Your task to perform on an android device: set default search engine in the chrome app Image 0: 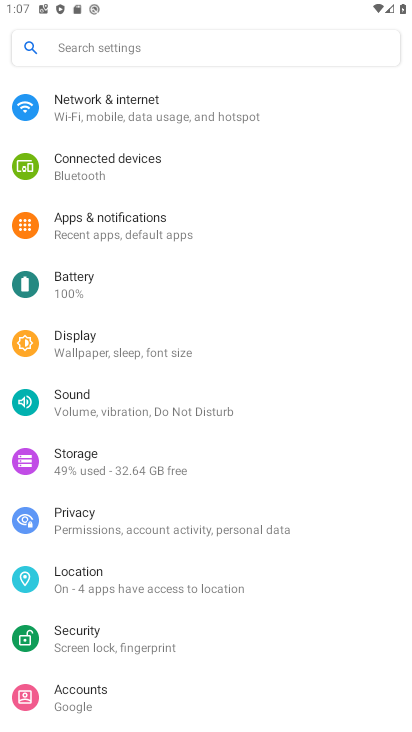
Step 0: drag from (231, 600) to (398, 479)
Your task to perform on an android device: set default search engine in the chrome app Image 1: 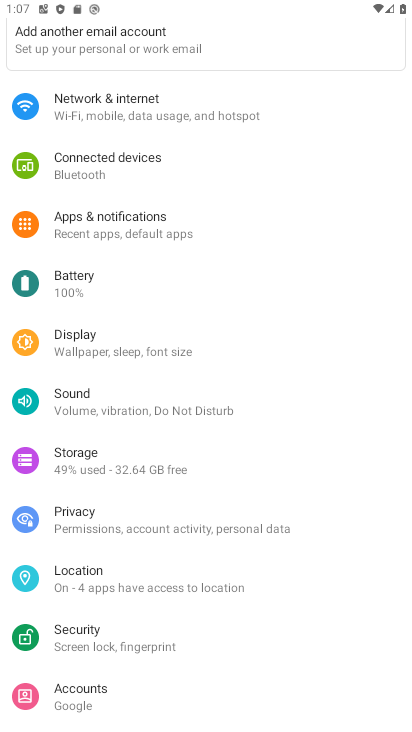
Step 1: press home button
Your task to perform on an android device: set default search engine in the chrome app Image 2: 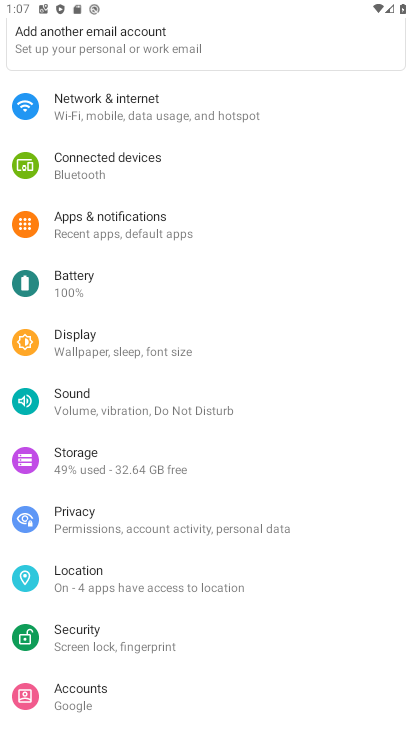
Step 2: drag from (398, 479) to (402, 556)
Your task to perform on an android device: set default search engine in the chrome app Image 3: 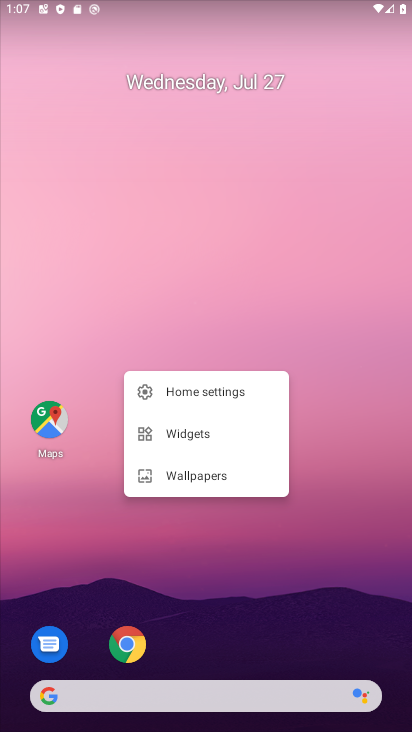
Step 3: click (112, 654)
Your task to perform on an android device: set default search engine in the chrome app Image 4: 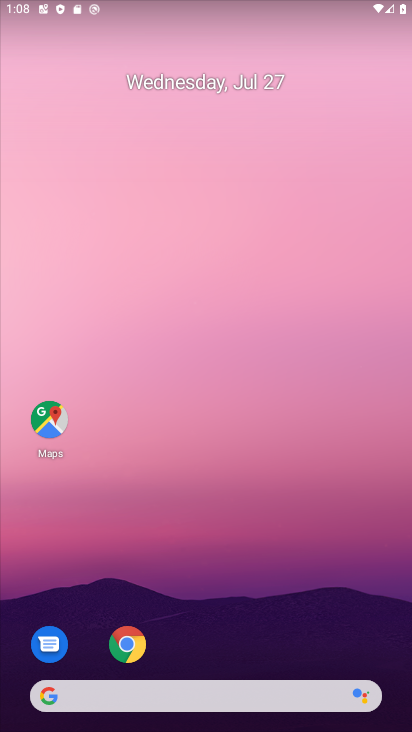
Step 4: click (112, 654)
Your task to perform on an android device: set default search engine in the chrome app Image 5: 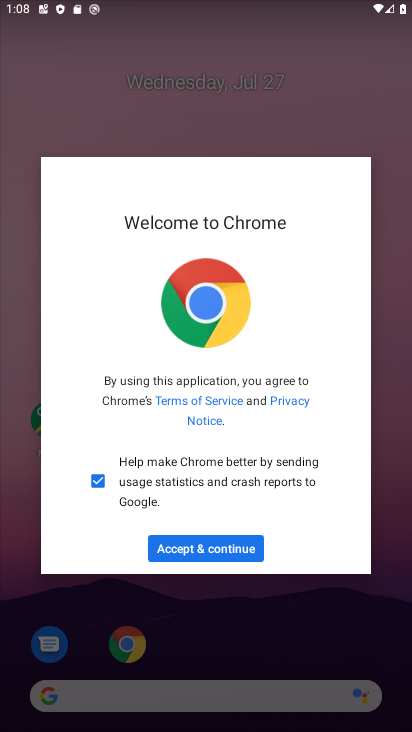
Step 5: click (228, 547)
Your task to perform on an android device: set default search engine in the chrome app Image 6: 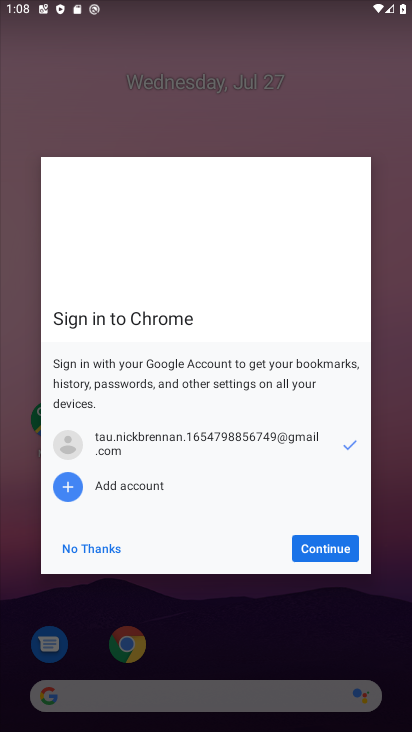
Step 6: click (330, 547)
Your task to perform on an android device: set default search engine in the chrome app Image 7: 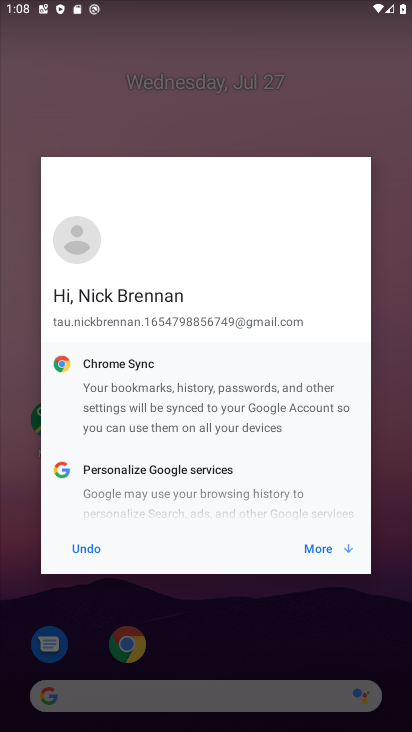
Step 7: click (340, 547)
Your task to perform on an android device: set default search engine in the chrome app Image 8: 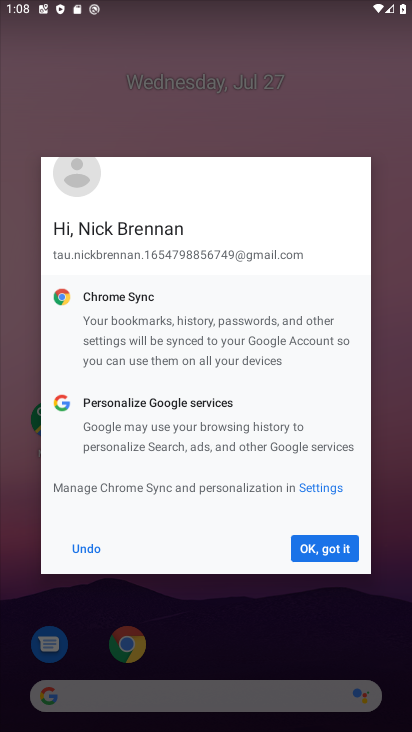
Step 8: click (350, 547)
Your task to perform on an android device: set default search engine in the chrome app Image 9: 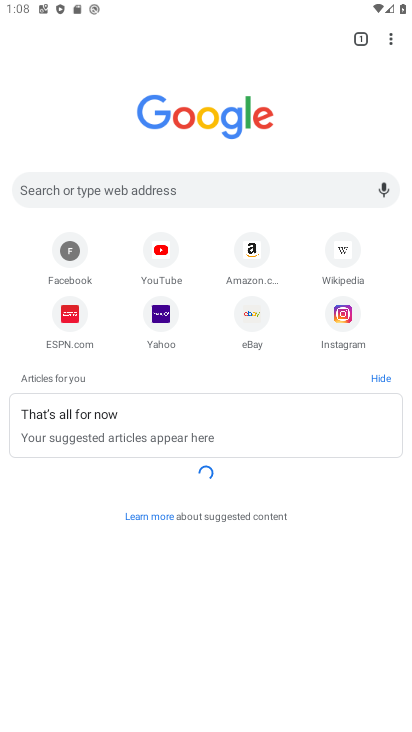
Step 9: click (392, 29)
Your task to perform on an android device: set default search engine in the chrome app Image 10: 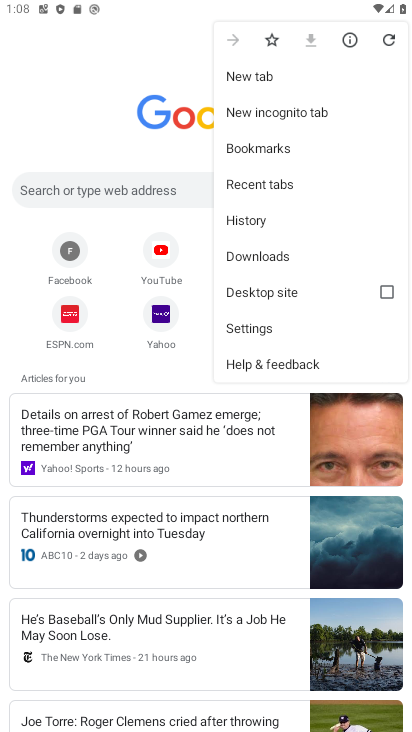
Step 10: click (248, 321)
Your task to perform on an android device: set default search engine in the chrome app Image 11: 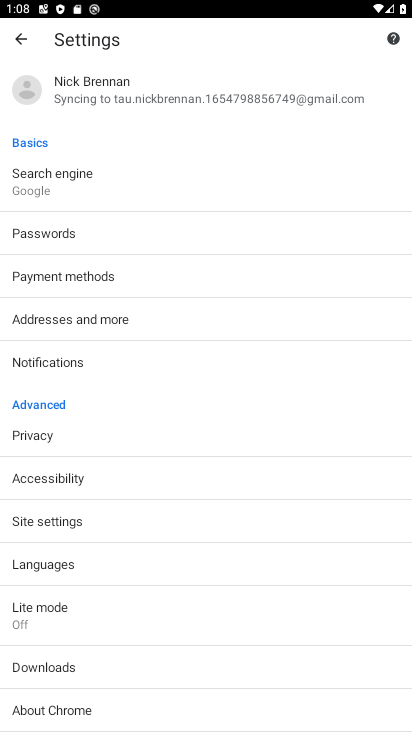
Step 11: click (32, 189)
Your task to perform on an android device: set default search engine in the chrome app Image 12: 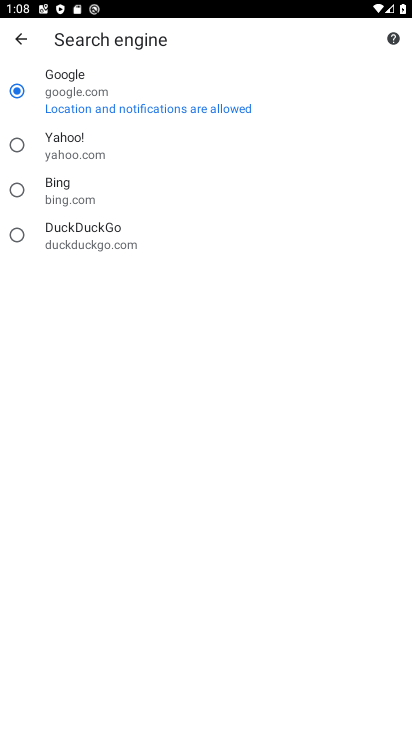
Step 12: click (36, 138)
Your task to perform on an android device: set default search engine in the chrome app Image 13: 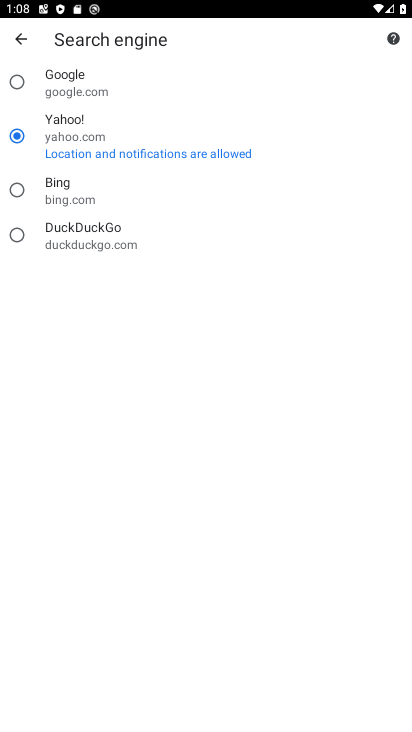
Step 13: task complete